Your task to perform on an android device: change your default location settings in chrome Image 0: 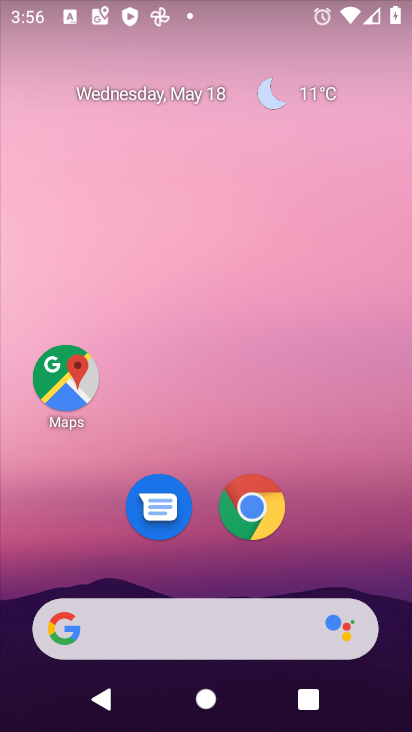
Step 0: click (253, 505)
Your task to perform on an android device: change your default location settings in chrome Image 1: 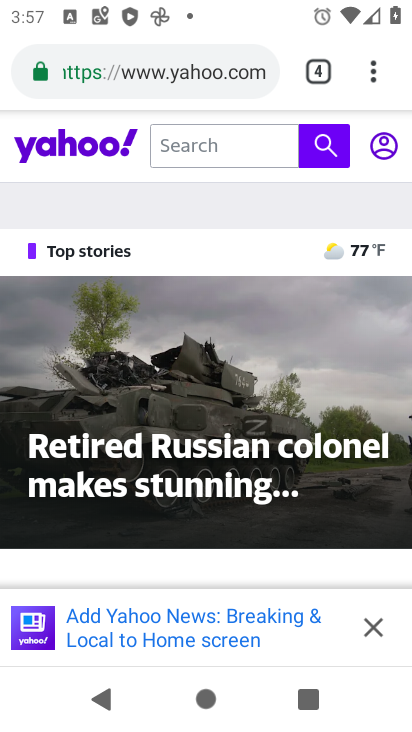
Step 1: click (372, 75)
Your task to perform on an android device: change your default location settings in chrome Image 2: 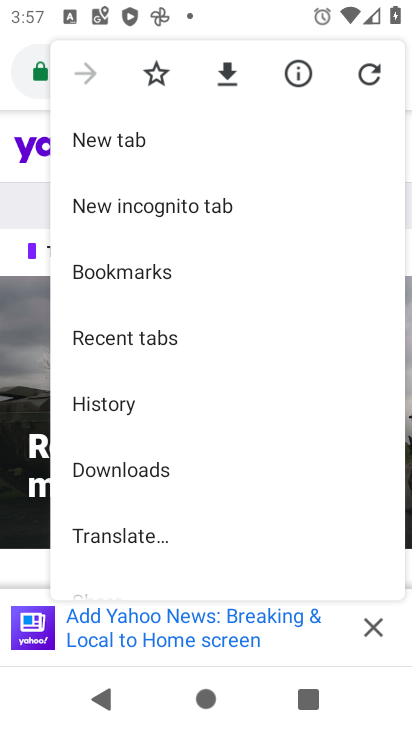
Step 2: drag from (208, 500) to (220, 219)
Your task to perform on an android device: change your default location settings in chrome Image 3: 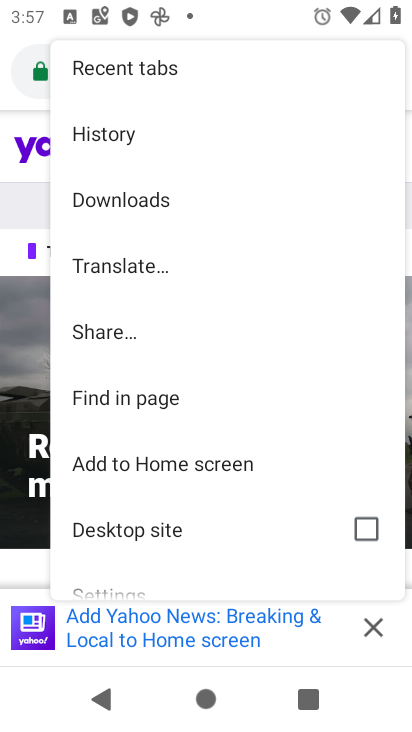
Step 3: drag from (249, 485) to (203, 194)
Your task to perform on an android device: change your default location settings in chrome Image 4: 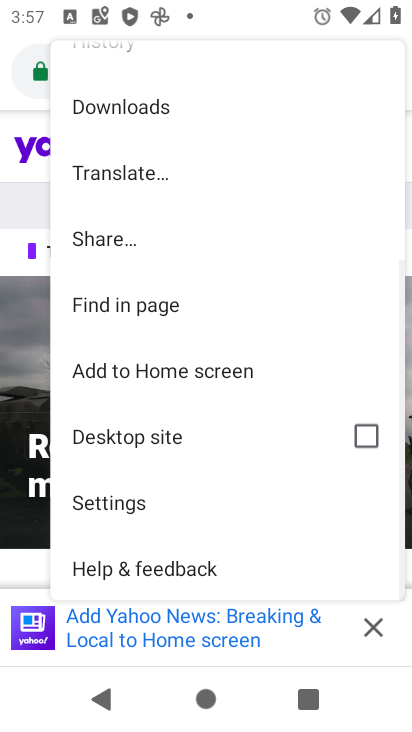
Step 4: click (131, 498)
Your task to perform on an android device: change your default location settings in chrome Image 5: 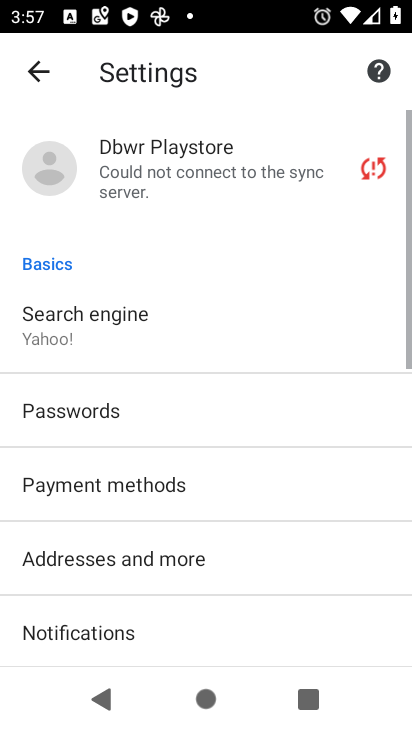
Step 5: drag from (261, 596) to (218, 240)
Your task to perform on an android device: change your default location settings in chrome Image 6: 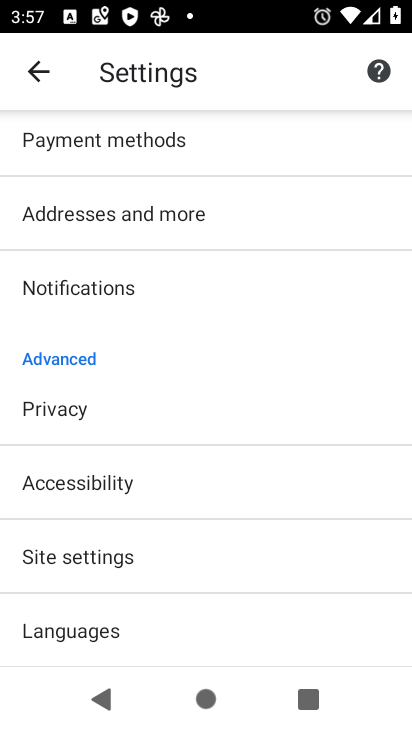
Step 6: click (76, 555)
Your task to perform on an android device: change your default location settings in chrome Image 7: 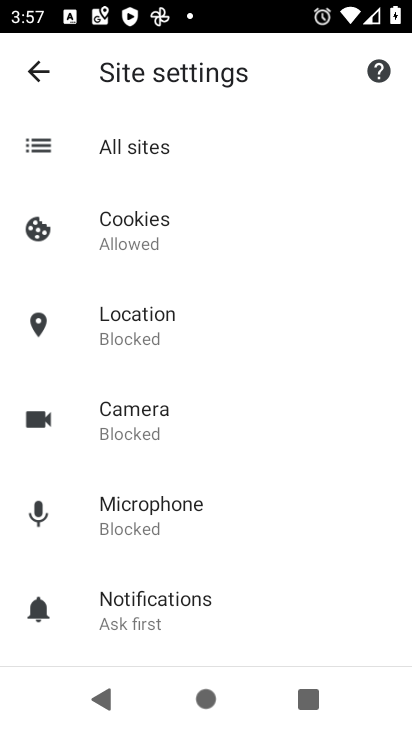
Step 7: click (129, 326)
Your task to perform on an android device: change your default location settings in chrome Image 8: 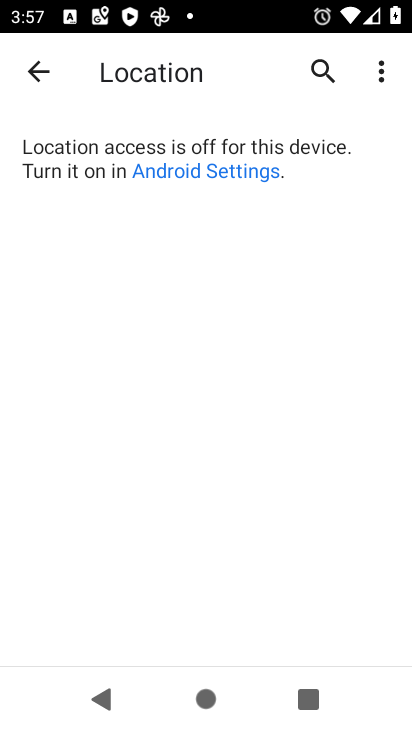
Step 8: task complete